Your task to perform on an android device: turn on showing notifications on the lock screen Image 0: 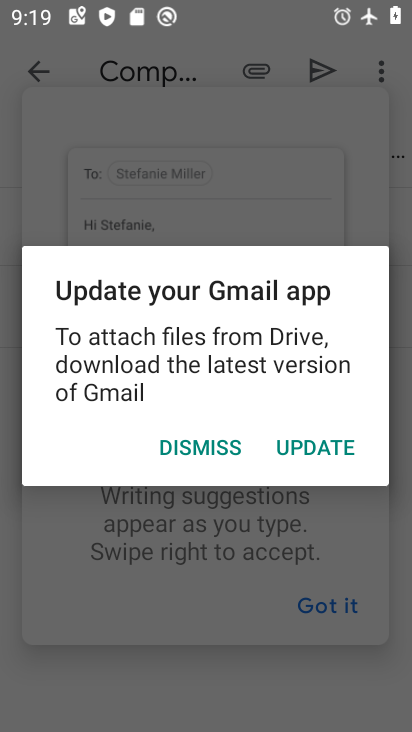
Step 0: press home button
Your task to perform on an android device: turn on showing notifications on the lock screen Image 1: 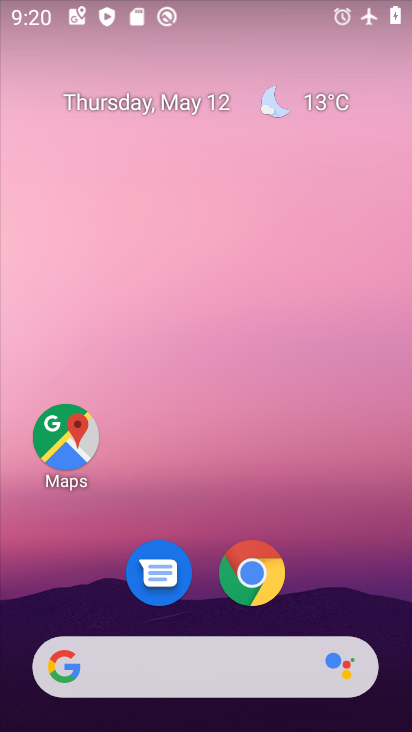
Step 1: drag from (406, 691) to (358, 208)
Your task to perform on an android device: turn on showing notifications on the lock screen Image 2: 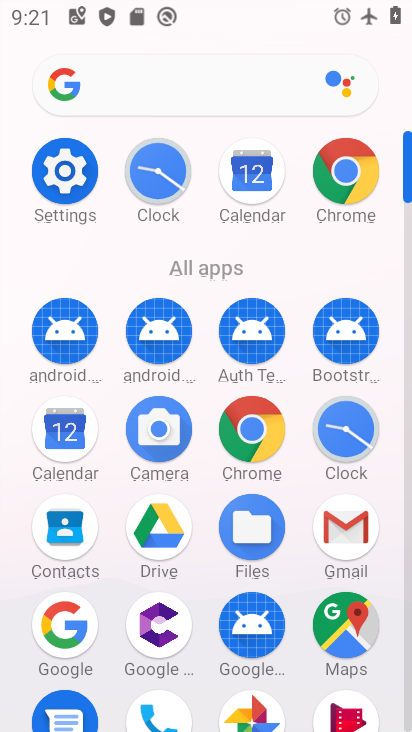
Step 2: click (70, 165)
Your task to perform on an android device: turn on showing notifications on the lock screen Image 3: 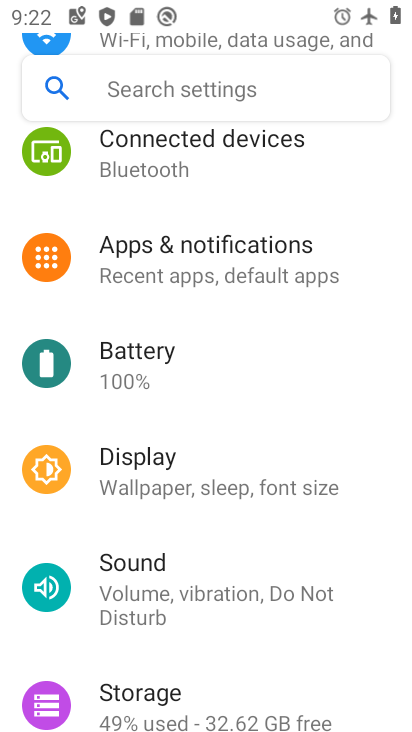
Step 3: click (167, 252)
Your task to perform on an android device: turn on showing notifications on the lock screen Image 4: 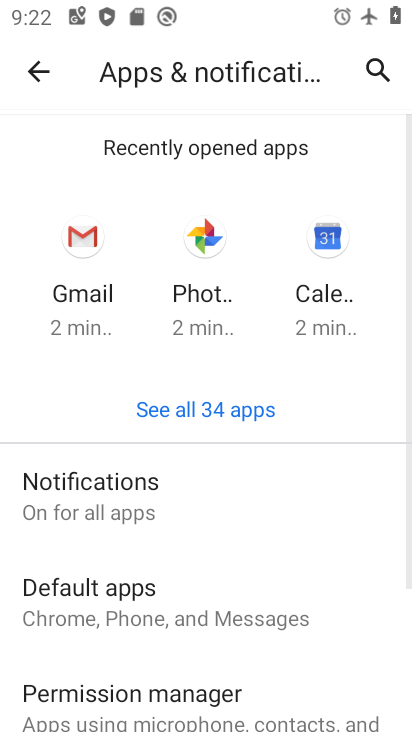
Step 4: click (84, 487)
Your task to perform on an android device: turn on showing notifications on the lock screen Image 5: 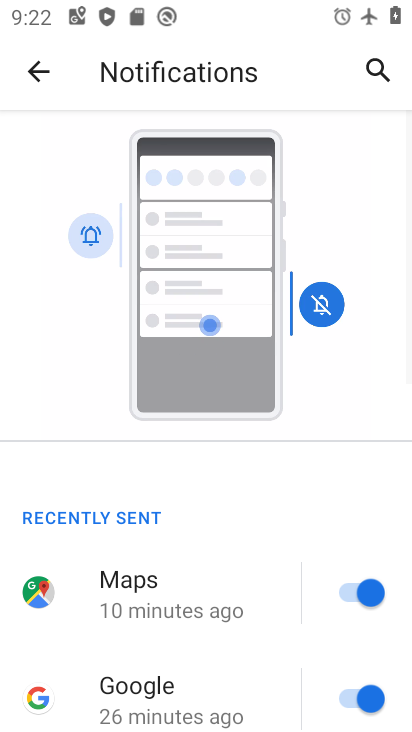
Step 5: drag from (250, 692) to (195, 321)
Your task to perform on an android device: turn on showing notifications on the lock screen Image 6: 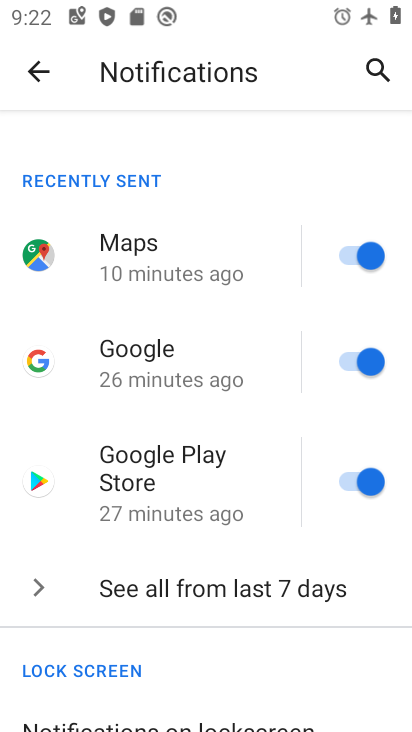
Step 6: drag from (251, 694) to (236, 358)
Your task to perform on an android device: turn on showing notifications on the lock screen Image 7: 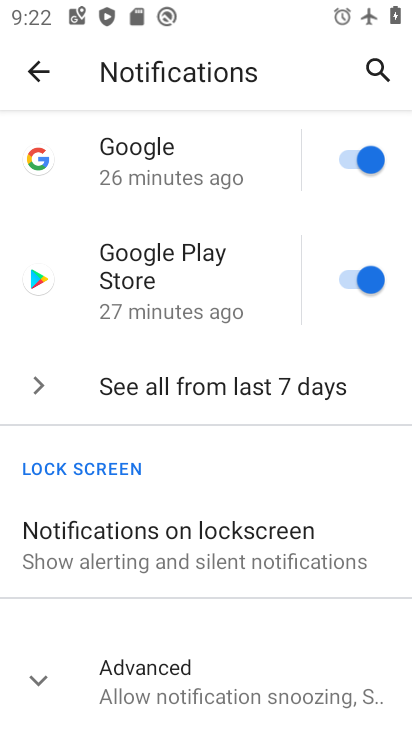
Step 7: click (172, 541)
Your task to perform on an android device: turn on showing notifications on the lock screen Image 8: 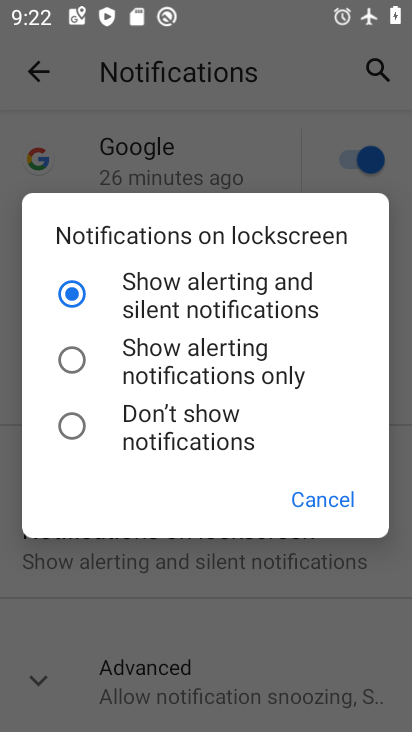
Step 8: task complete